Your task to perform on an android device: Go to calendar. Show me events next week Image 0: 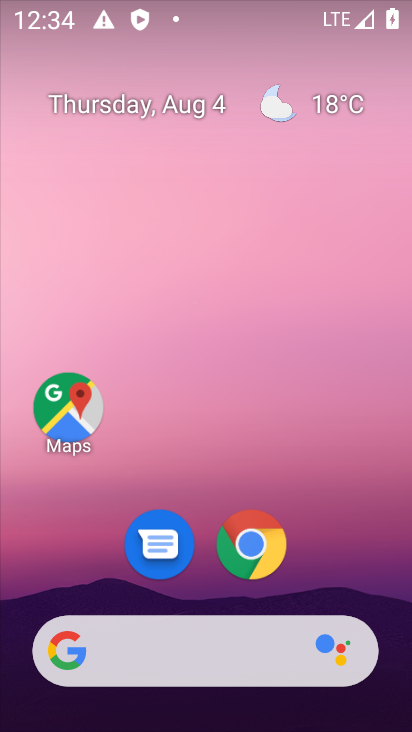
Step 0: drag from (392, 658) to (316, 126)
Your task to perform on an android device: Go to calendar. Show me events next week Image 1: 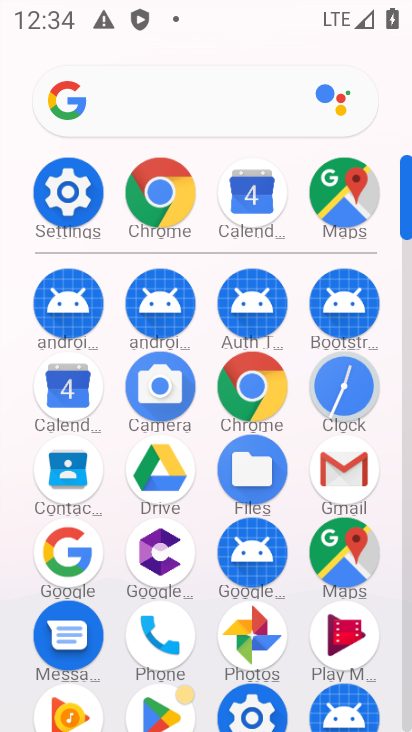
Step 1: click (69, 397)
Your task to perform on an android device: Go to calendar. Show me events next week Image 2: 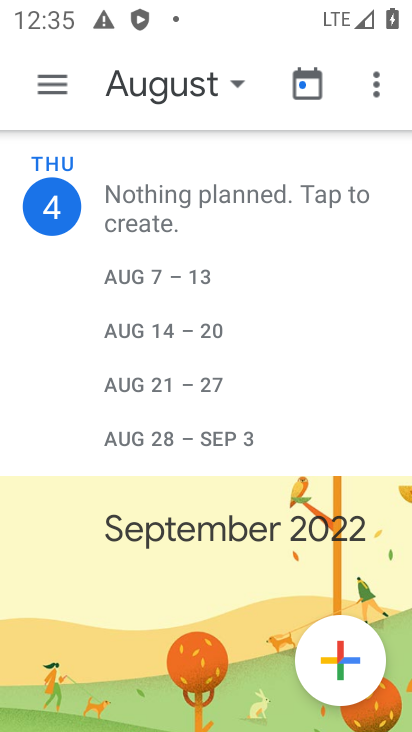
Step 2: click (238, 87)
Your task to perform on an android device: Go to calendar. Show me events next week Image 3: 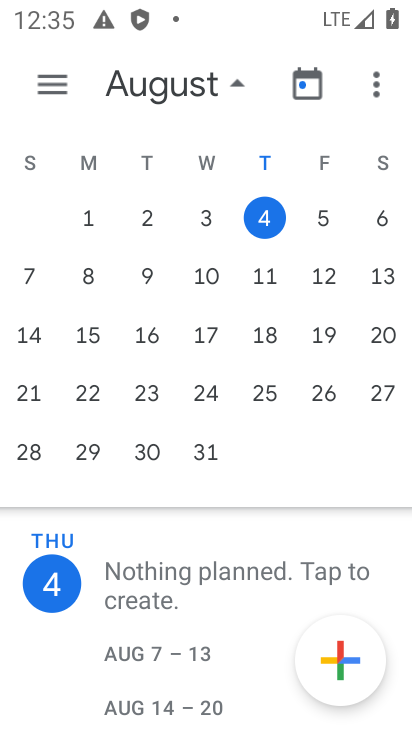
Step 3: click (267, 278)
Your task to perform on an android device: Go to calendar. Show me events next week Image 4: 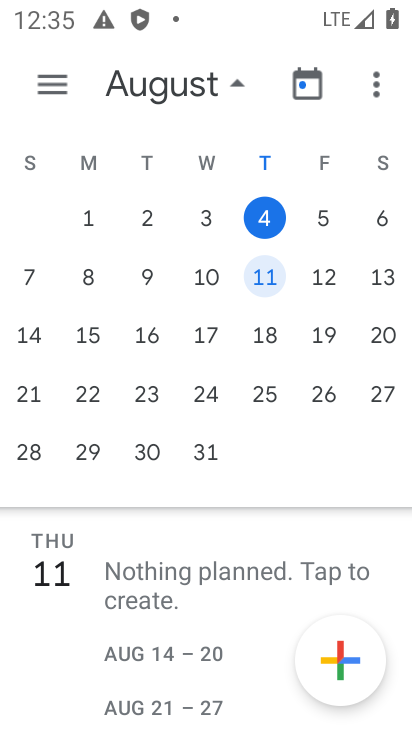
Step 4: click (41, 87)
Your task to perform on an android device: Go to calendar. Show me events next week Image 5: 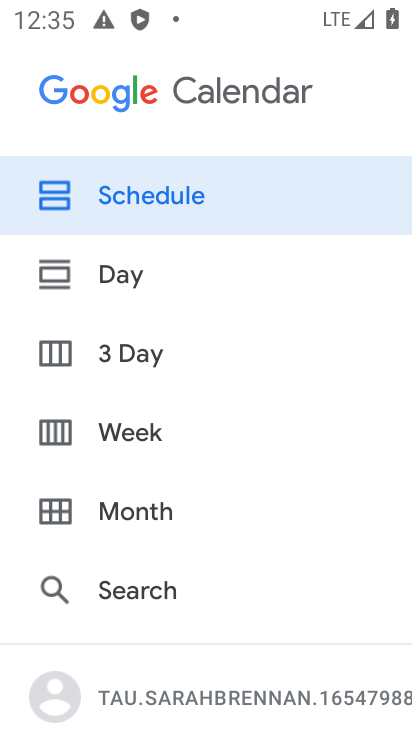
Step 5: click (130, 431)
Your task to perform on an android device: Go to calendar. Show me events next week Image 6: 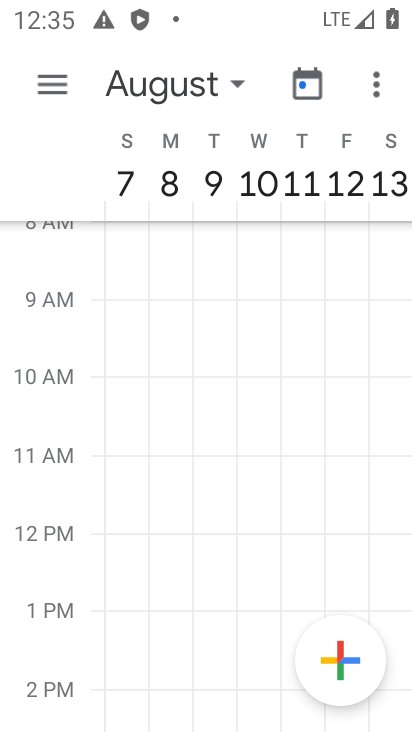
Step 6: click (38, 79)
Your task to perform on an android device: Go to calendar. Show me events next week Image 7: 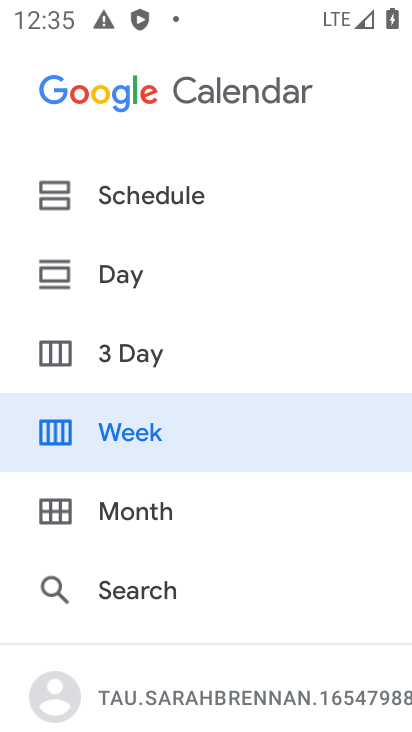
Step 7: click (131, 199)
Your task to perform on an android device: Go to calendar. Show me events next week Image 8: 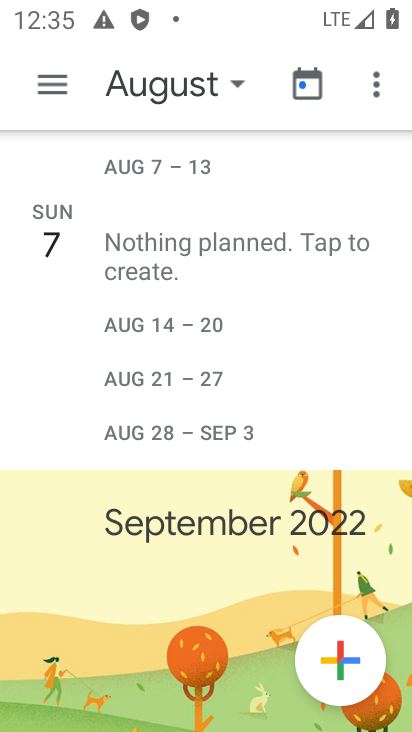
Step 8: task complete